Your task to perform on an android device: Go to Google maps Image 0: 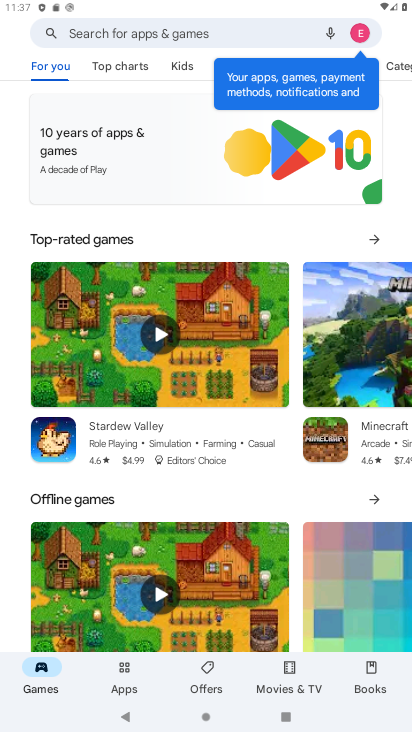
Step 0: press home button
Your task to perform on an android device: Go to Google maps Image 1: 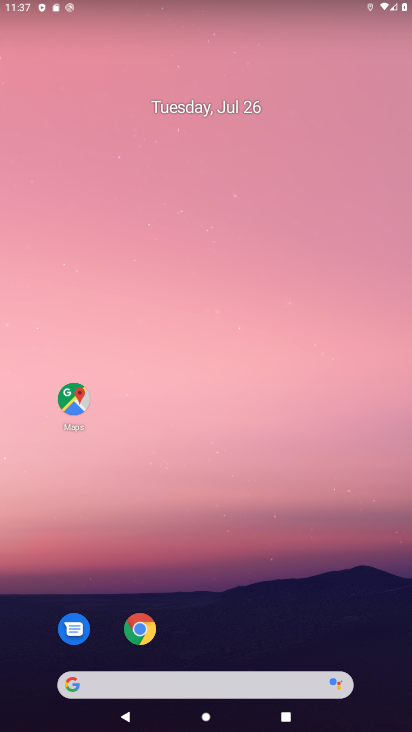
Step 1: drag from (235, 717) to (248, 179)
Your task to perform on an android device: Go to Google maps Image 2: 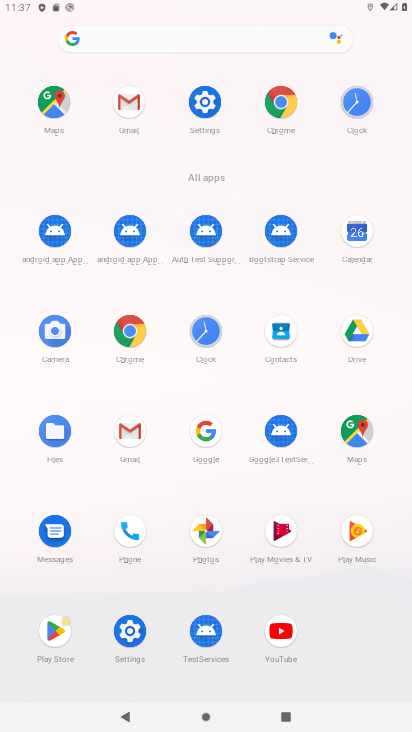
Step 2: click (363, 425)
Your task to perform on an android device: Go to Google maps Image 3: 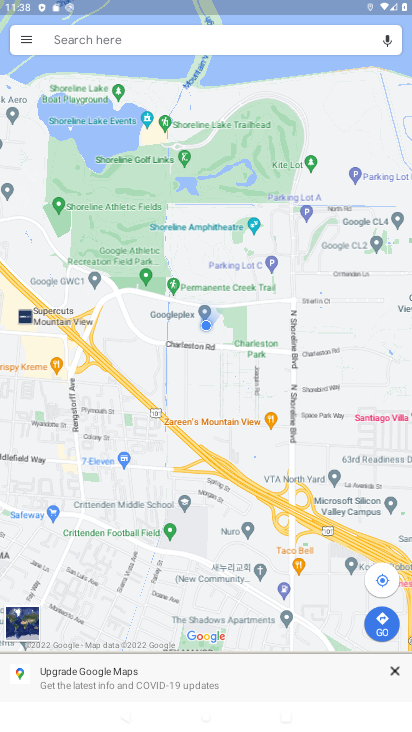
Step 3: task complete